Your task to perform on an android device: Open notification settings Image 0: 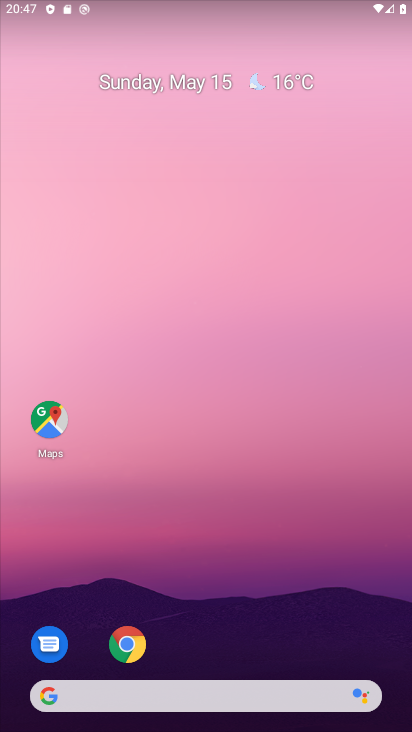
Step 0: drag from (237, 608) to (319, 59)
Your task to perform on an android device: Open notification settings Image 1: 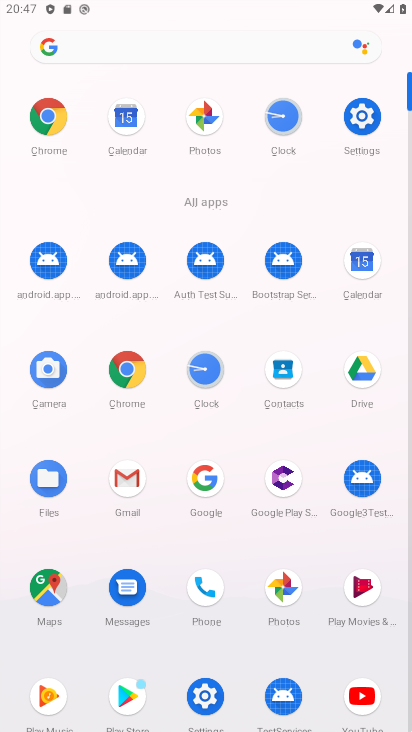
Step 1: click (370, 106)
Your task to perform on an android device: Open notification settings Image 2: 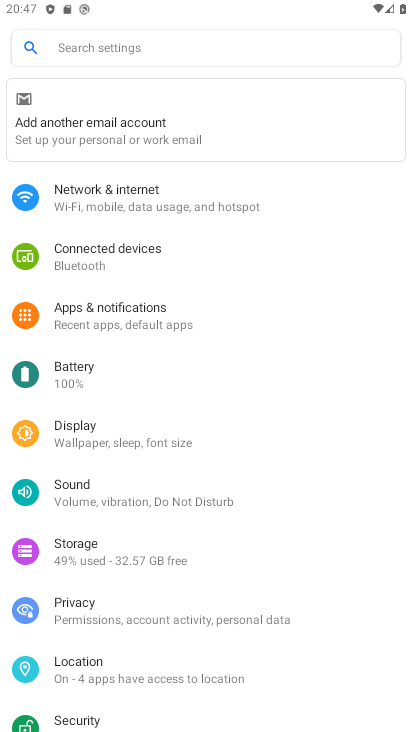
Step 2: click (99, 324)
Your task to perform on an android device: Open notification settings Image 3: 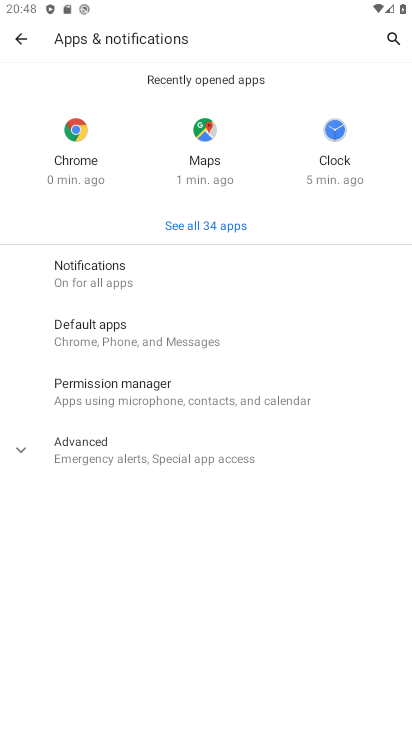
Step 3: click (154, 270)
Your task to perform on an android device: Open notification settings Image 4: 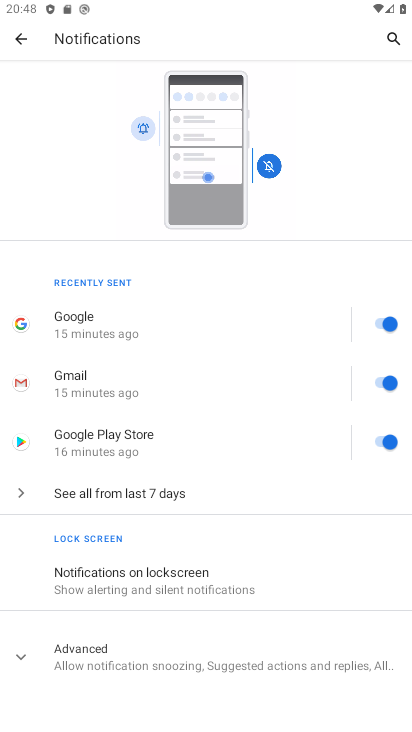
Step 4: task complete